Your task to perform on an android device: Go to notification settings Image 0: 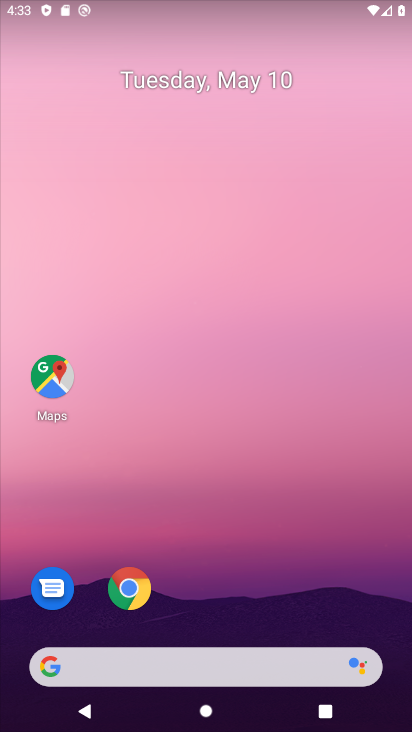
Step 0: drag from (234, 488) to (214, 15)
Your task to perform on an android device: Go to notification settings Image 1: 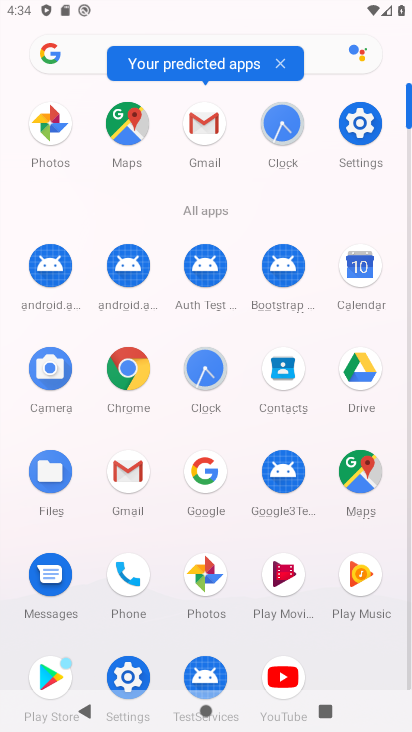
Step 1: click (357, 125)
Your task to perform on an android device: Go to notification settings Image 2: 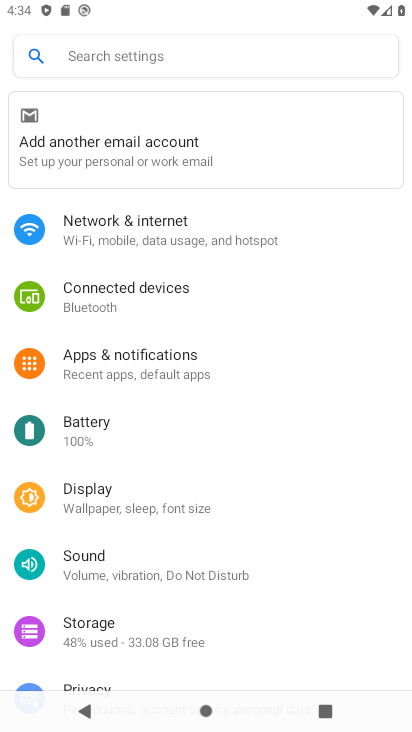
Step 2: click (181, 354)
Your task to perform on an android device: Go to notification settings Image 3: 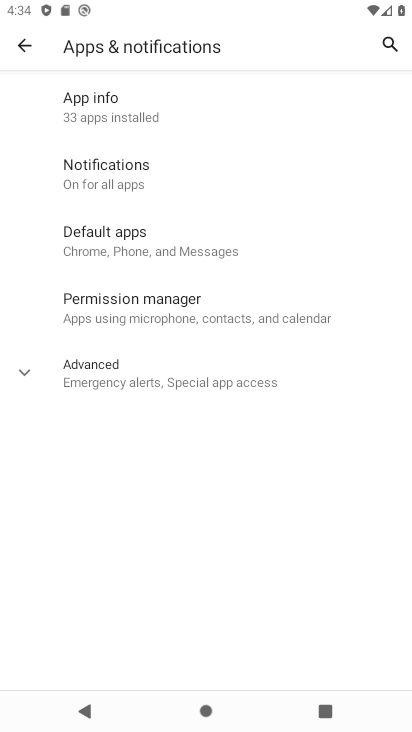
Step 3: click (112, 163)
Your task to perform on an android device: Go to notification settings Image 4: 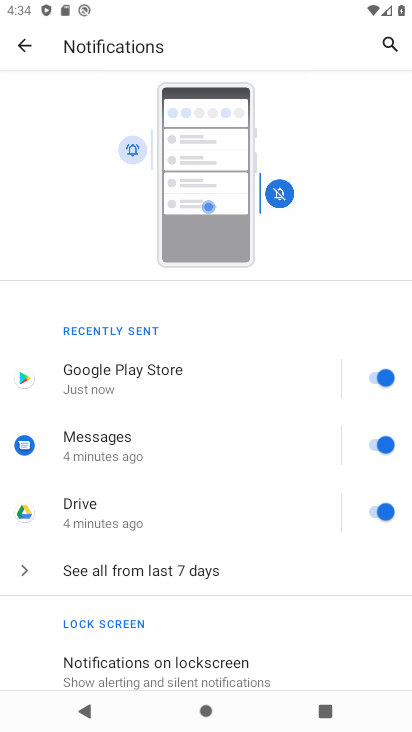
Step 4: task complete